Your task to perform on an android device: open app "Messenger Lite" Image 0: 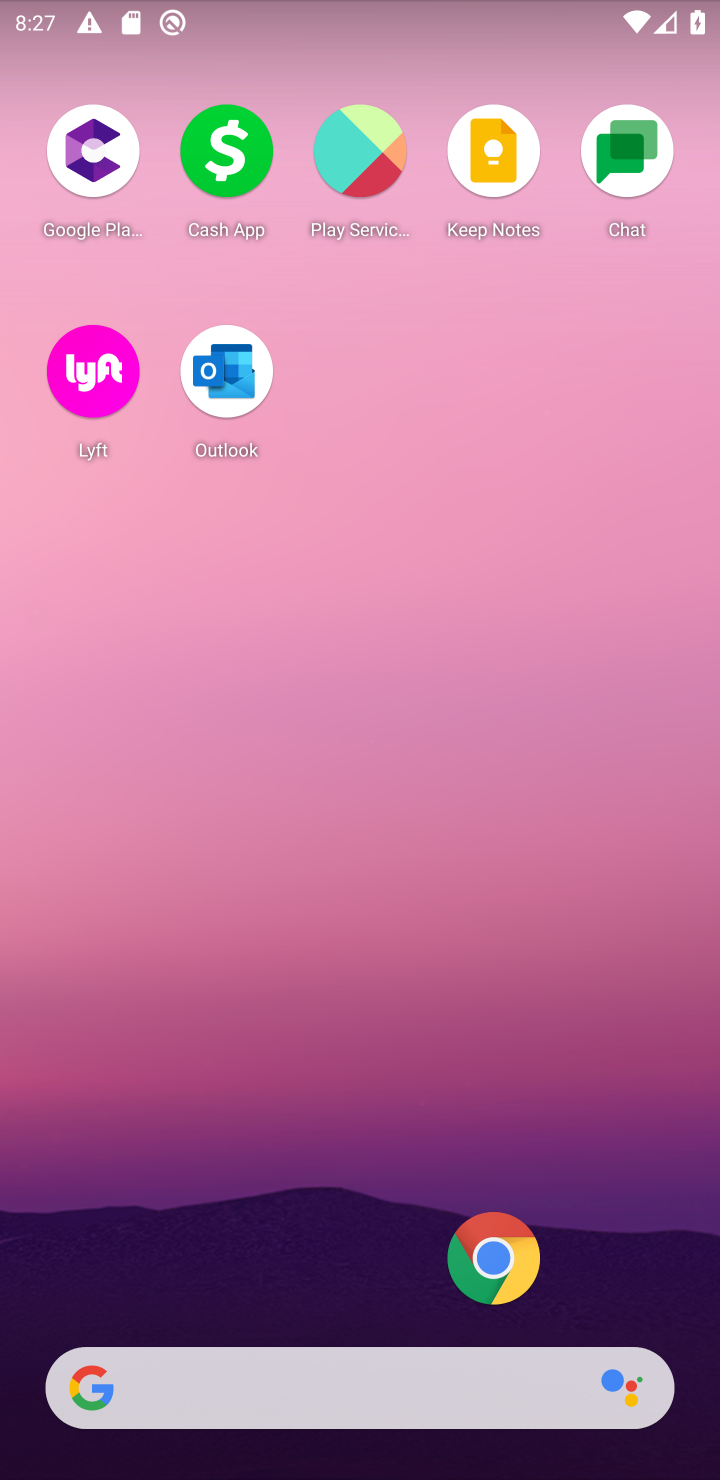
Step 0: drag from (357, 1002) to (438, 20)
Your task to perform on an android device: open app "Messenger Lite" Image 1: 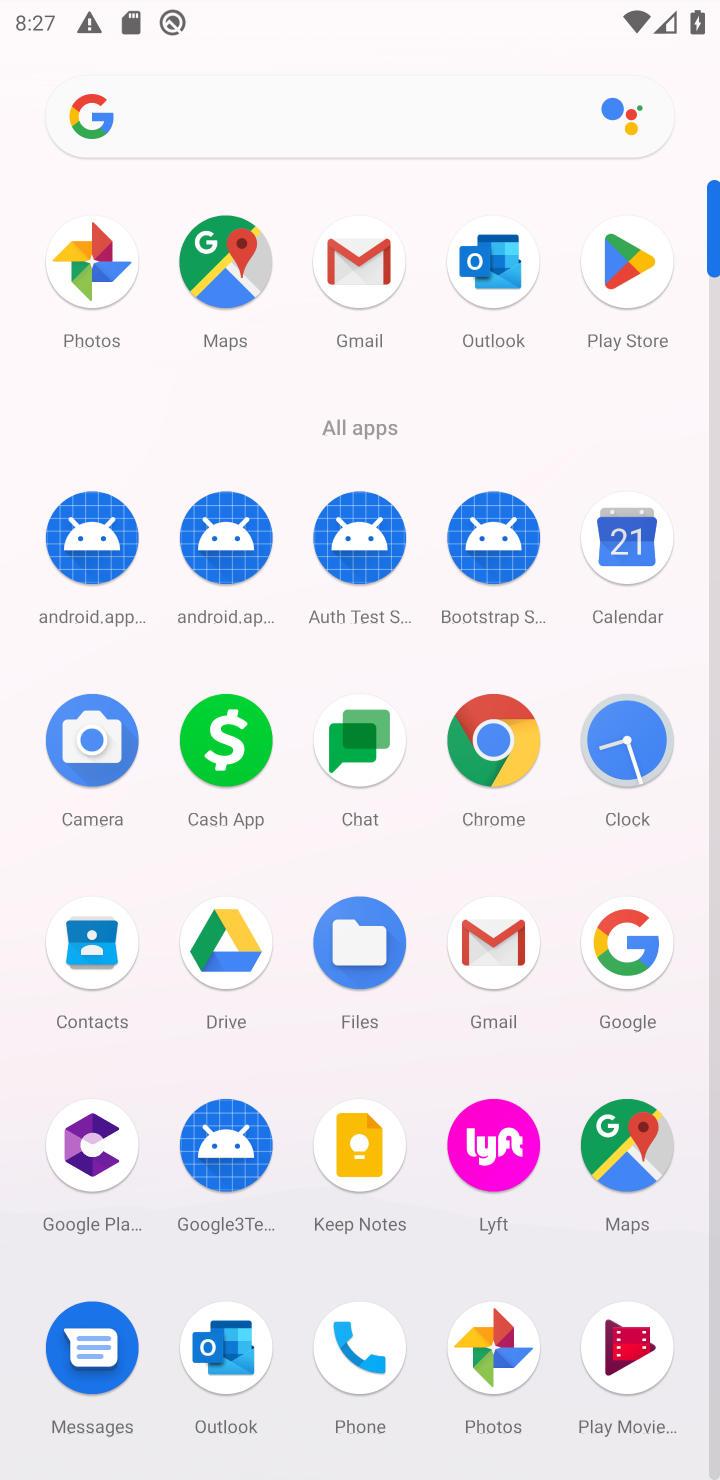
Step 1: click (617, 236)
Your task to perform on an android device: open app "Messenger Lite" Image 2: 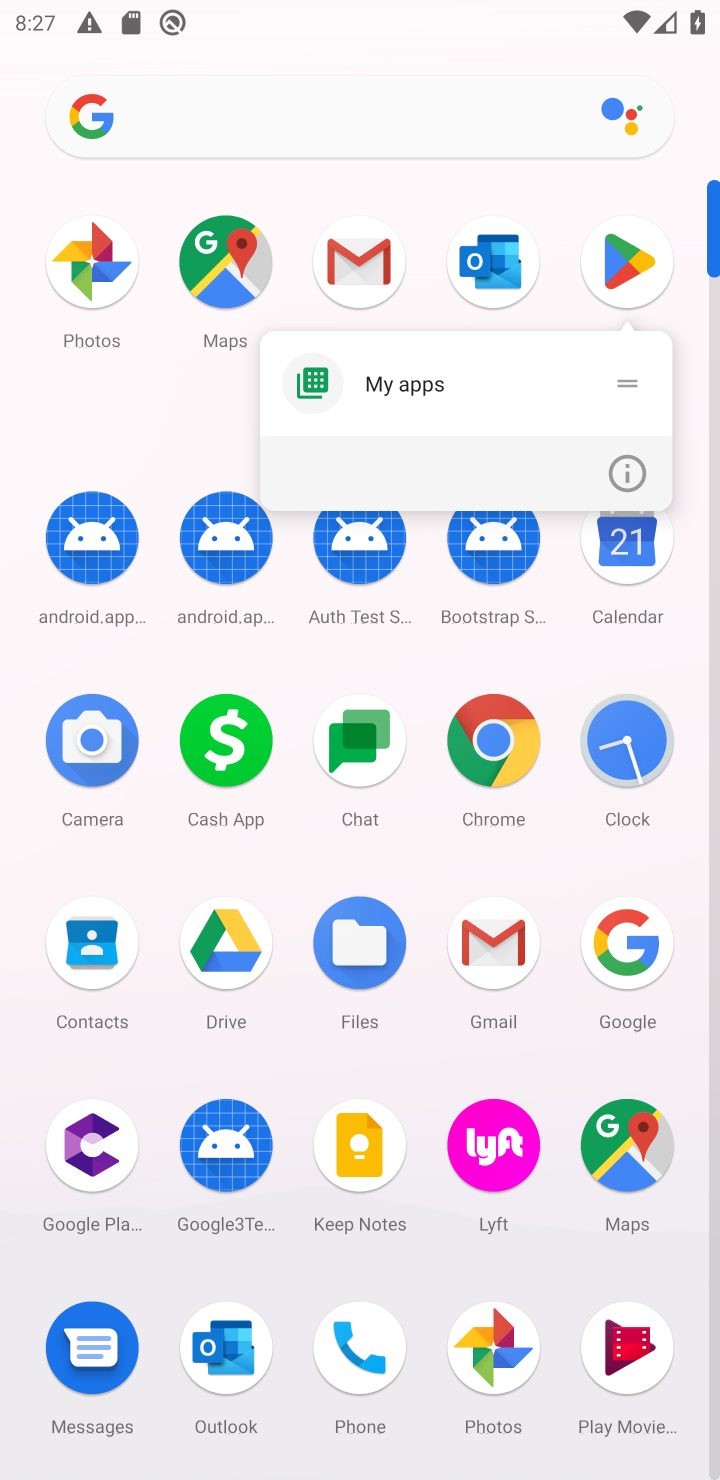
Step 2: click (621, 236)
Your task to perform on an android device: open app "Messenger Lite" Image 3: 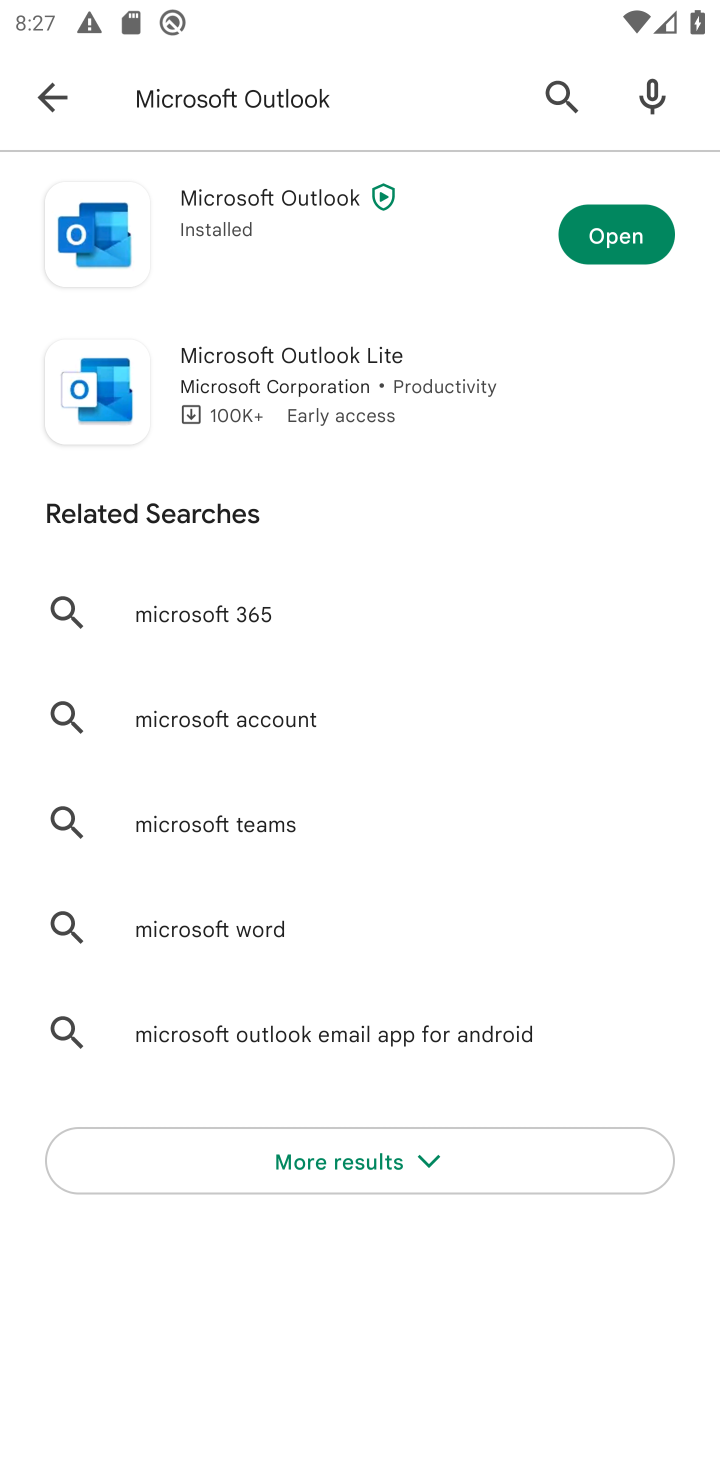
Step 3: press back button
Your task to perform on an android device: open app "Messenger Lite" Image 4: 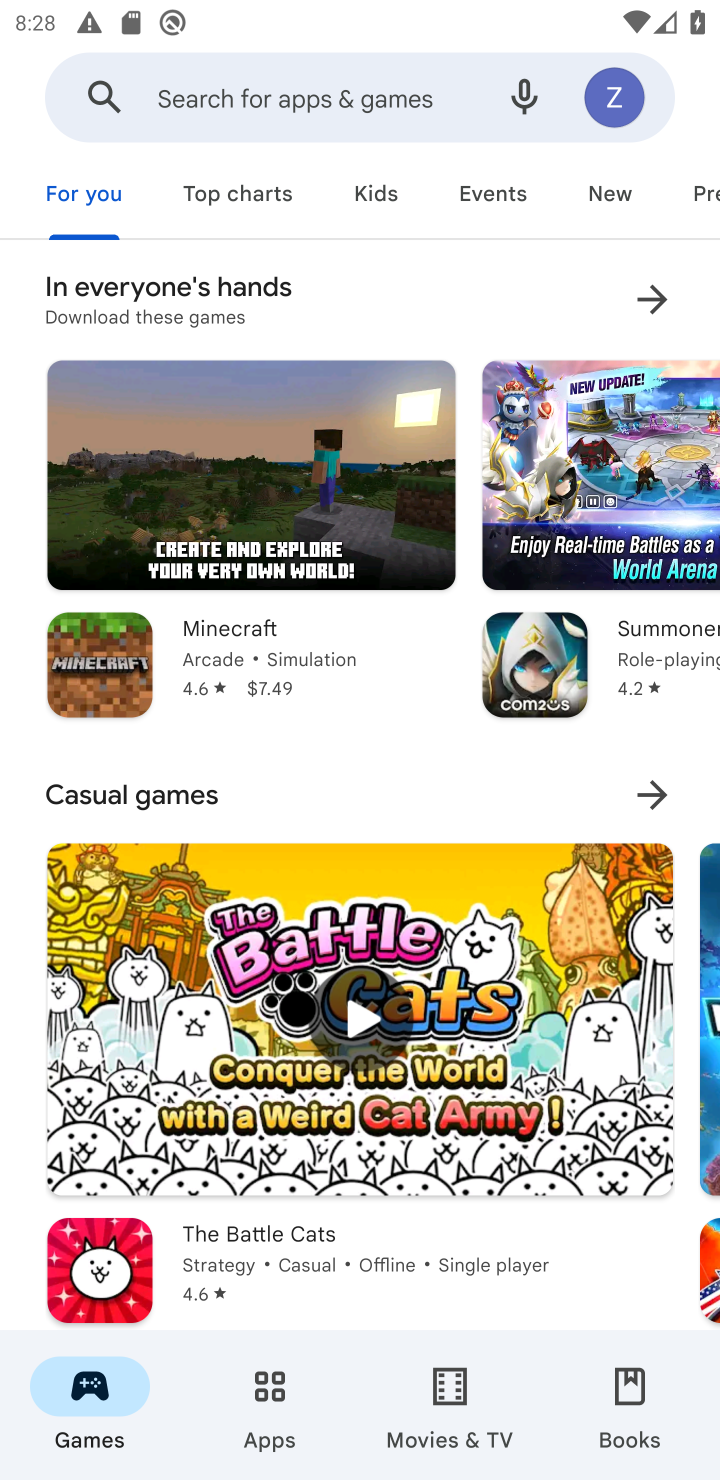
Step 4: click (297, 93)
Your task to perform on an android device: open app "Messenger Lite" Image 5: 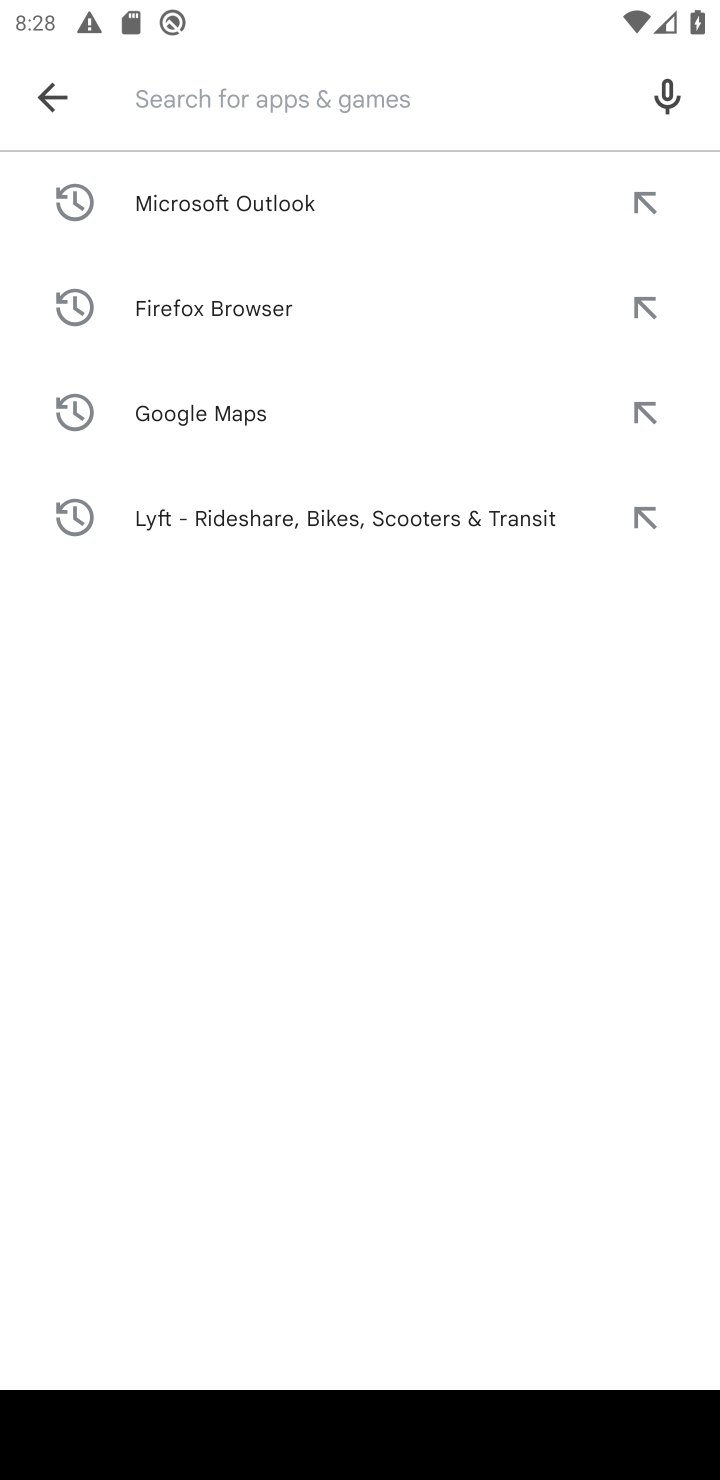
Step 5: type "Messenger Lite"
Your task to perform on an android device: open app "Messenger Lite" Image 6: 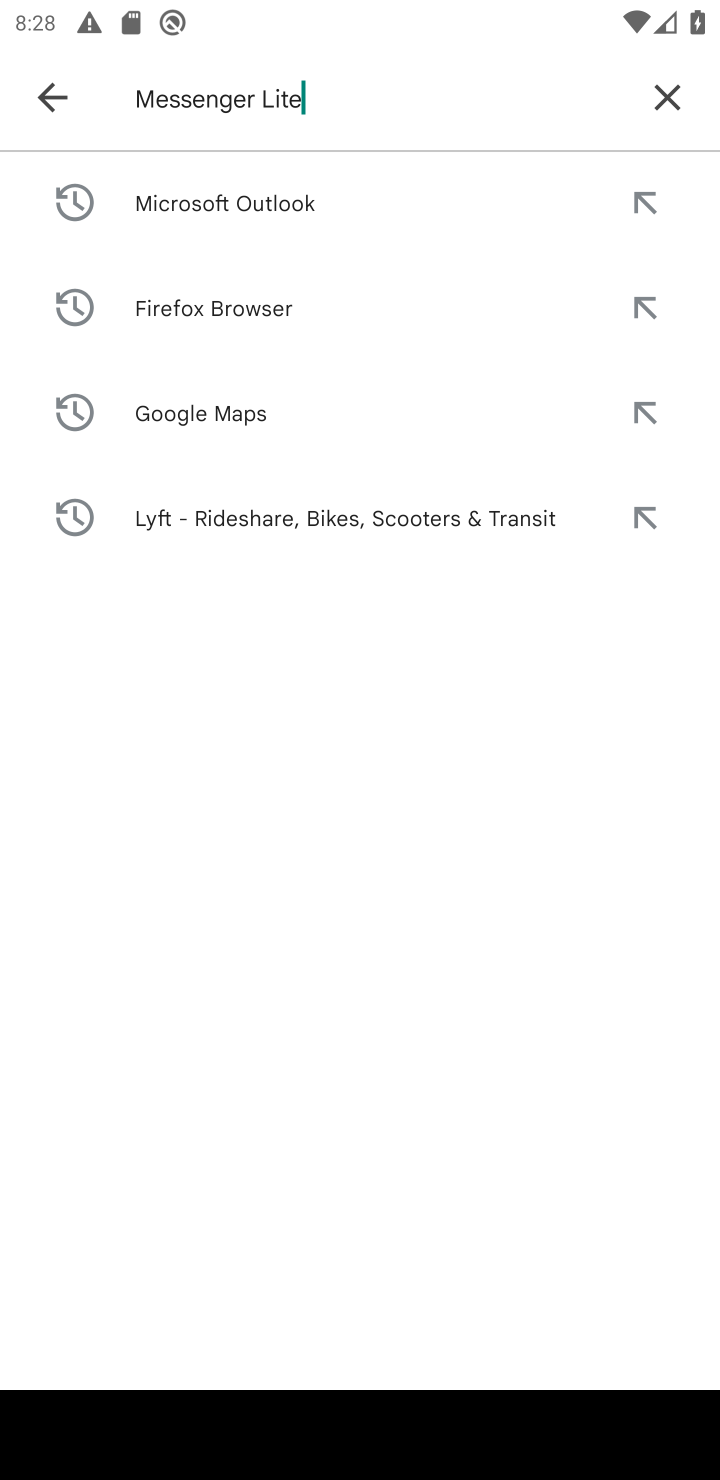
Step 6: press enter
Your task to perform on an android device: open app "Messenger Lite" Image 7: 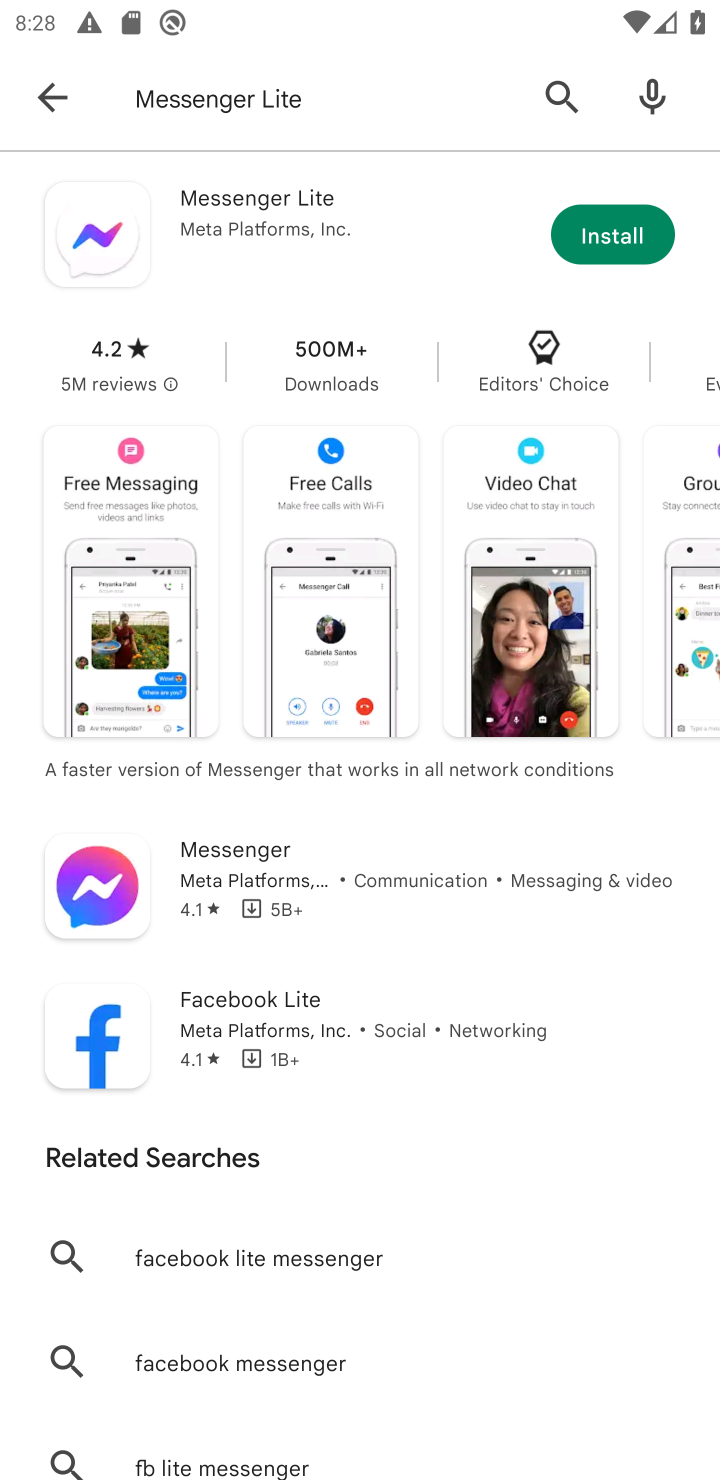
Step 7: task complete